Your task to perform on an android device: change notification settings in the gmail app Image 0: 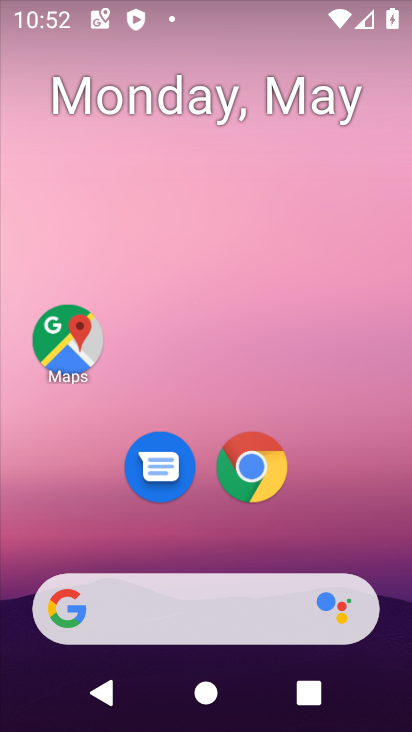
Step 0: drag from (401, 623) to (310, 83)
Your task to perform on an android device: change notification settings in the gmail app Image 1: 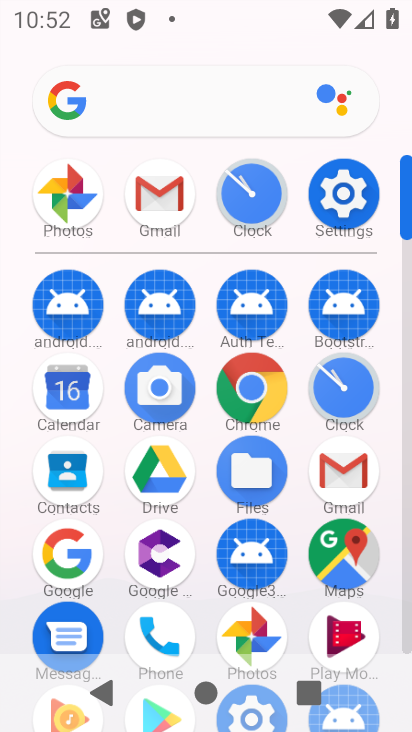
Step 1: click (405, 624)
Your task to perform on an android device: change notification settings in the gmail app Image 2: 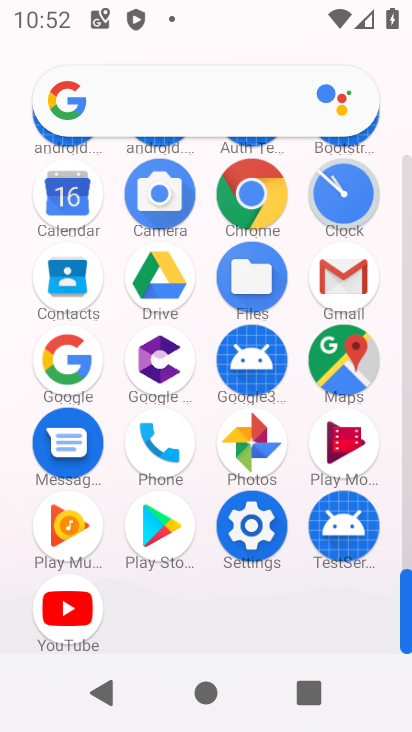
Step 2: click (340, 277)
Your task to perform on an android device: change notification settings in the gmail app Image 3: 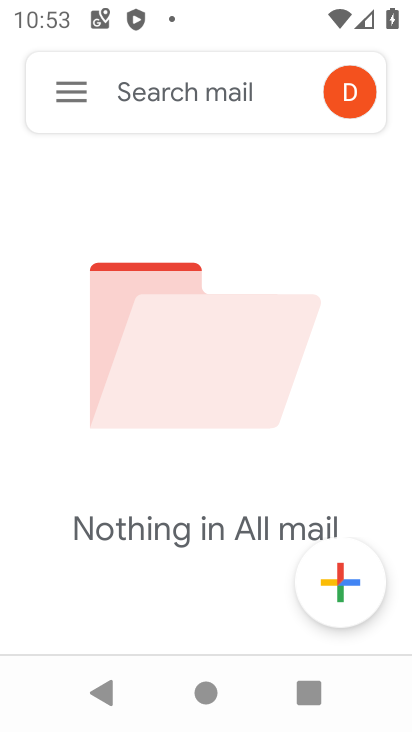
Step 3: click (61, 104)
Your task to perform on an android device: change notification settings in the gmail app Image 4: 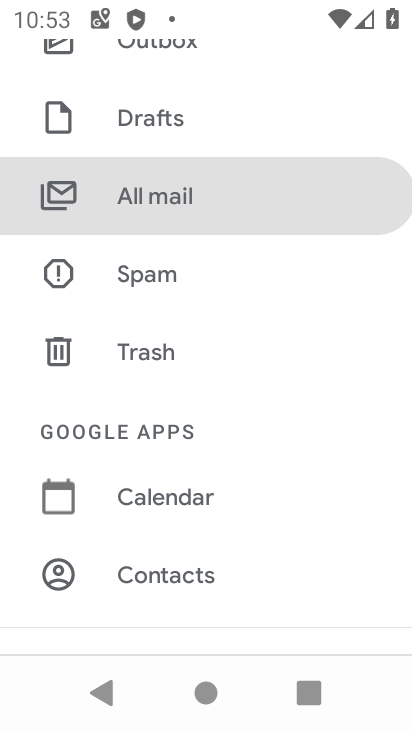
Step 4: drag from (260, 577) to (254, 158)
Your task to perform on an android device: change notification settings in the gmail app Image 5: 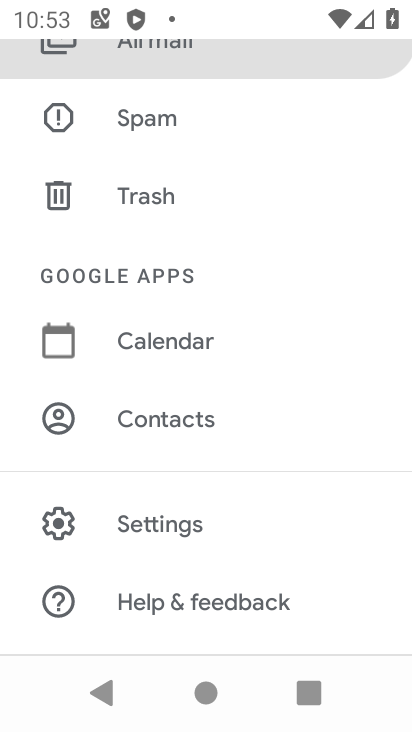
Step 5: click (133, 521)
Your task to perform on an android device: change notification settings in the gmail app Image 6: 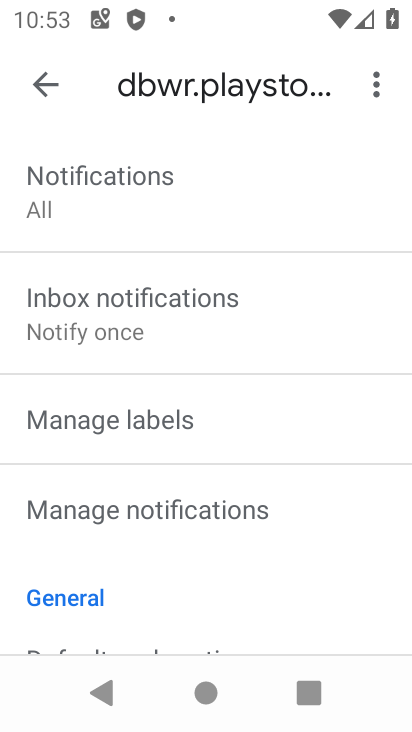
Step 6: click (129, 511)
Your task to perform on an android device: change notification settings in the gmail app Image 7: 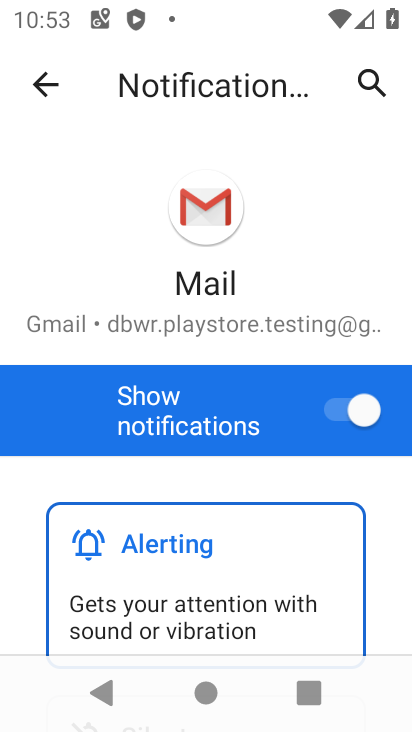
Step 7: drag from (370, 608) to (296, 163)
Your task to perform on an android device: change notification settings in the gmail app Image 8: 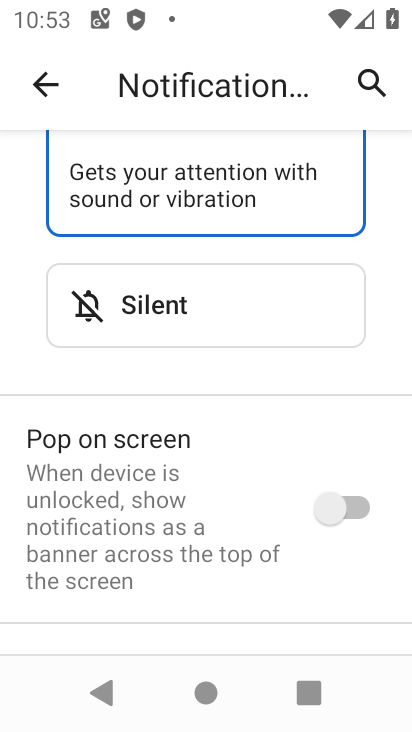
Step 8: drag from (323, 549) to (278, 265)
Your task to perform on an android device: change notification settings in the gmail app Image 9: 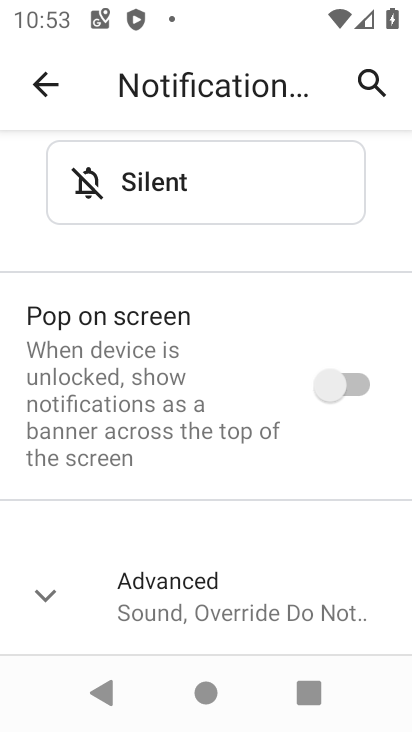
Step 9: click (48, 593)
Your task to perform on an android device: change notification settings in the gmail app Image 10: 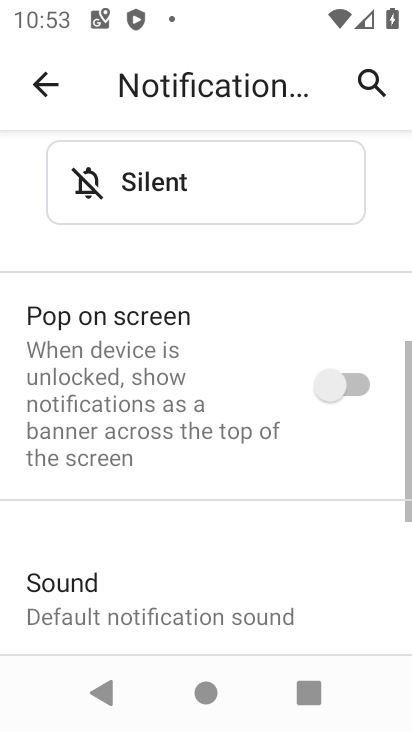
Step 10: drag from (293, 616) to (220, 157)
Your task to perform on an android device: change notification settings in the gmail app Image 11: 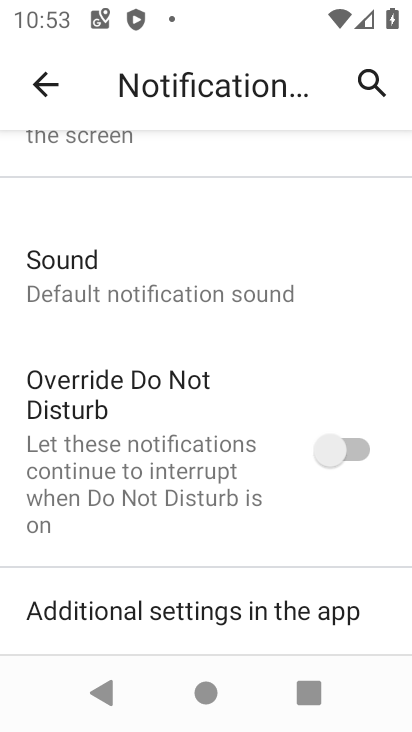
Step 11: drag from (308, 555) to (199, 108)
Your task to perform on an android device: change notification settings in the gmail app Image 12: 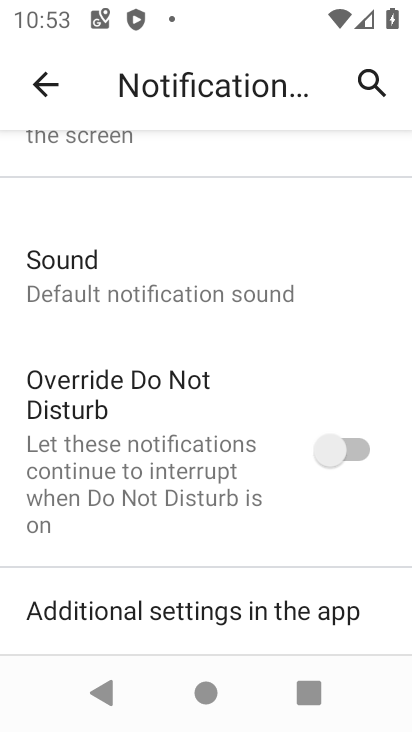
Step 12: click (358, 448)
Your task to perform on an android device: change notification settings in the gmail app Image 13: 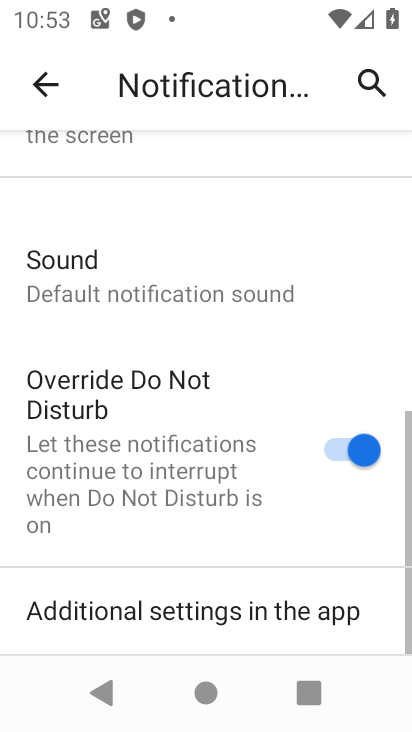
Step 13: drag from (251, 230) to (222, 580)
Your task to perform on an android device: change notification settings in the gmail app Image 14: 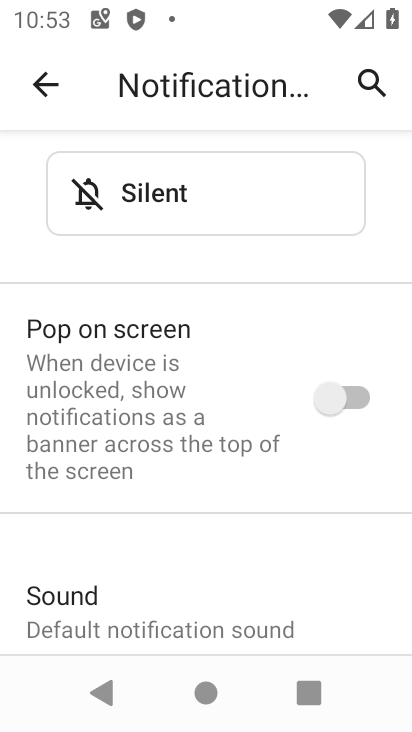
Step 14: click (366, 391)
Your task to perform on an android device: change notification settings in the gmail app Image 15: 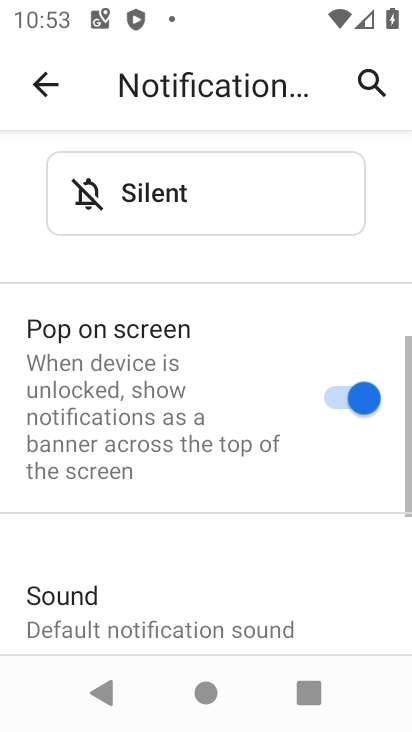
Step 15: task complete